Your task to perform on an android device: Go to Android settings Image 0: 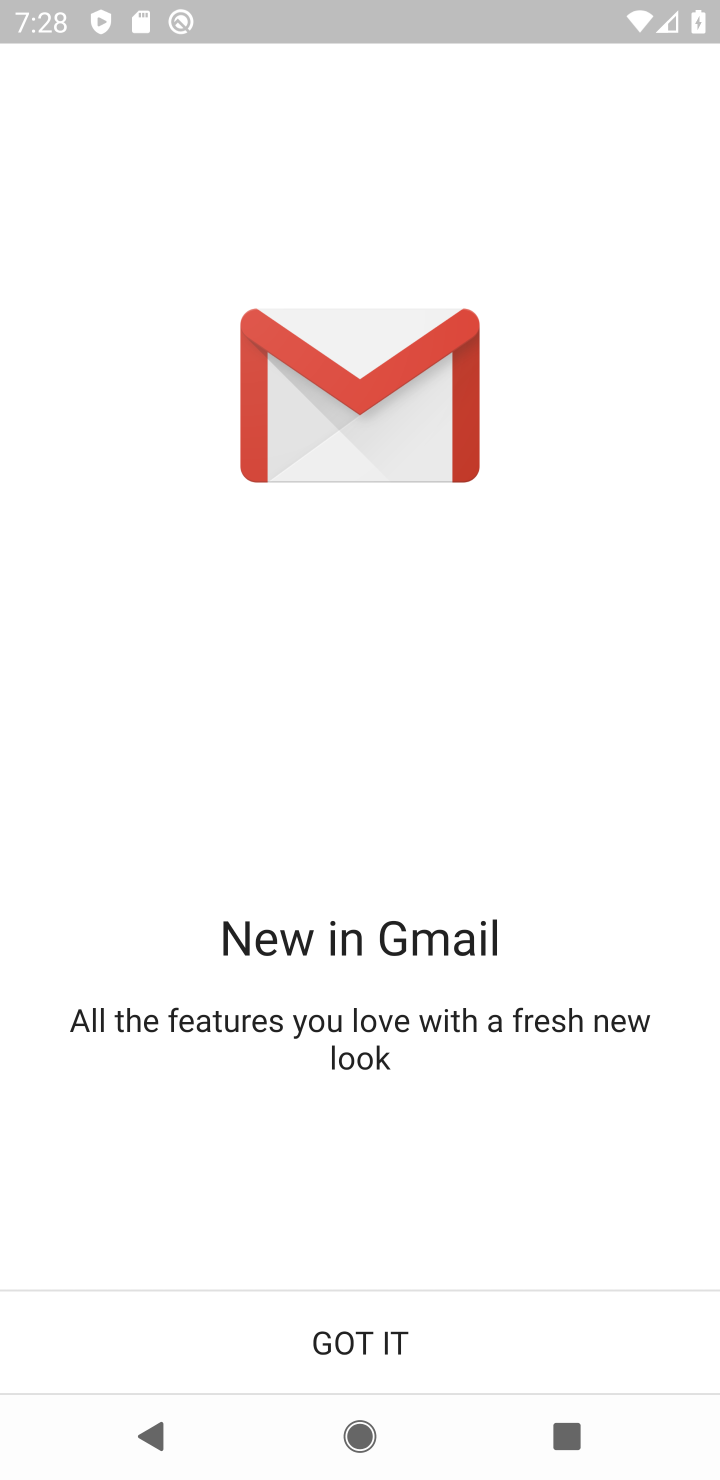
Step 0: press home button
Your task to perform on an android device: Go to Android settings Image 1: 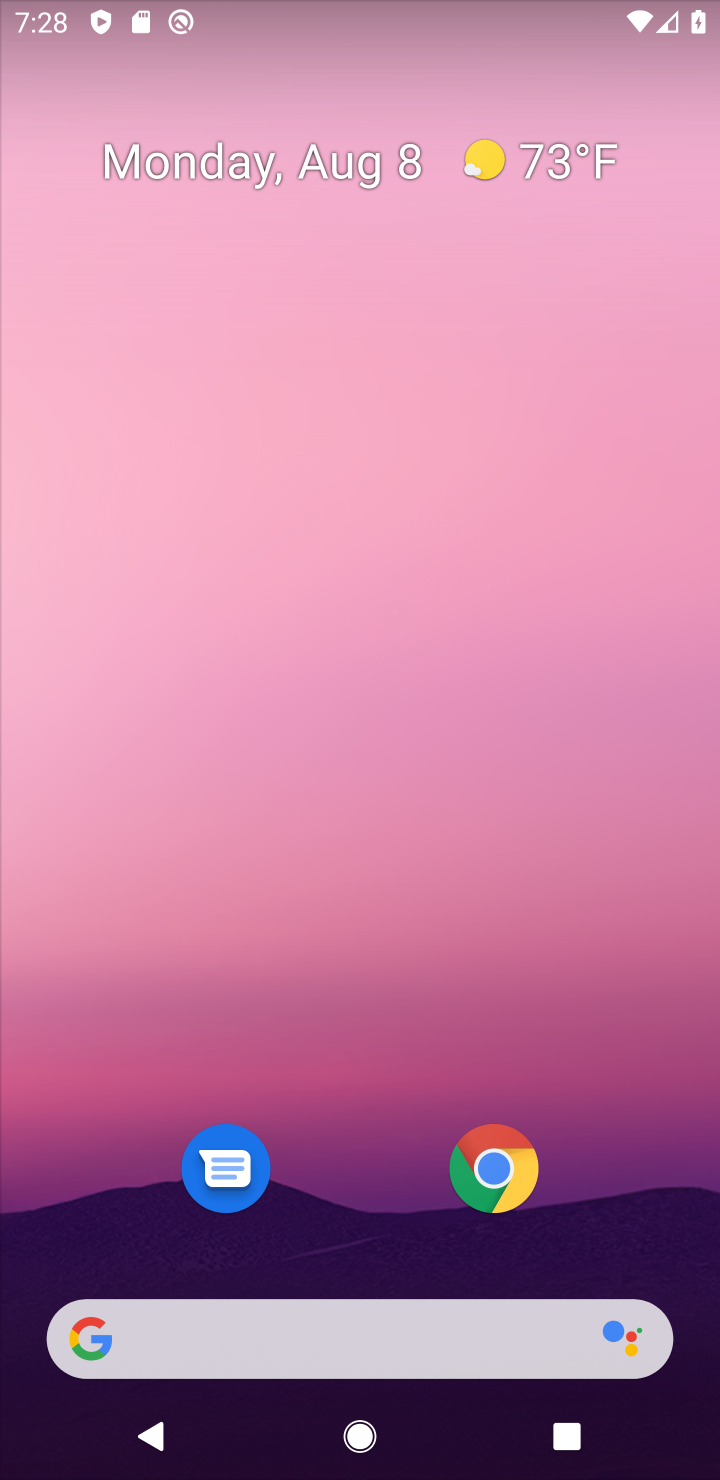
Step 1: drag from (386, 1260) to (471, 354)
Your task to perform on an android device: Go to Android settings Image 2: 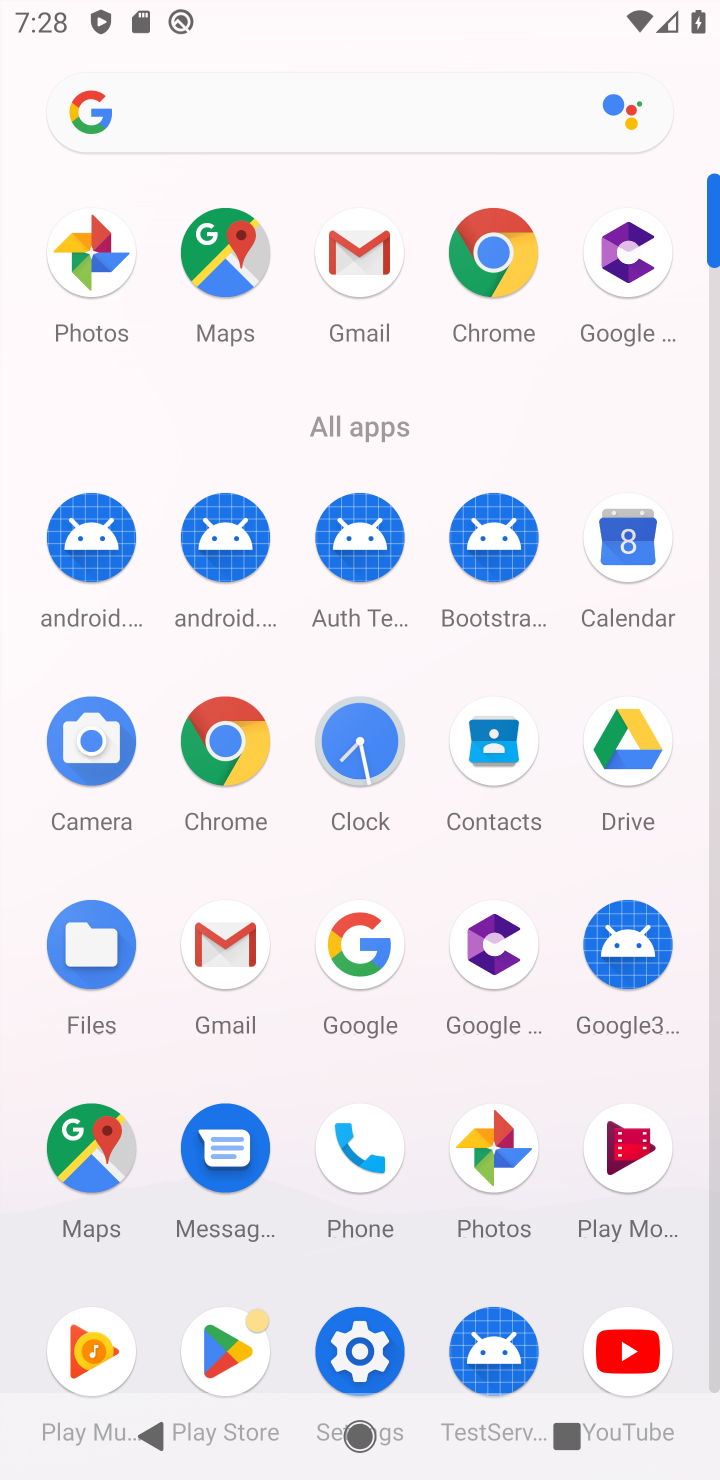
Step 2: click (358, 1343)
Your task to perform on an android device: Go to Android settings Image 3: 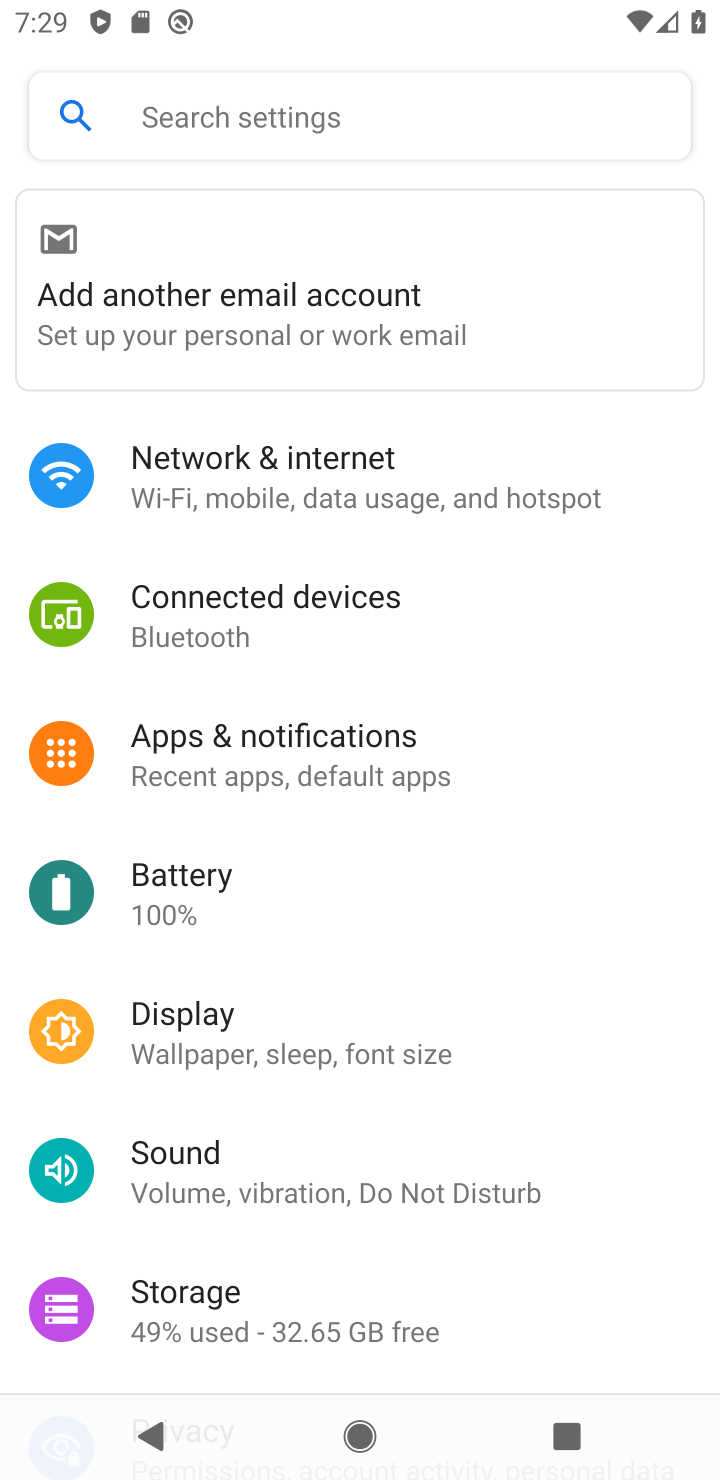
Step 3: task complete